Your task to perform on an android device: toggle show notifications on the lock screen Image 0: 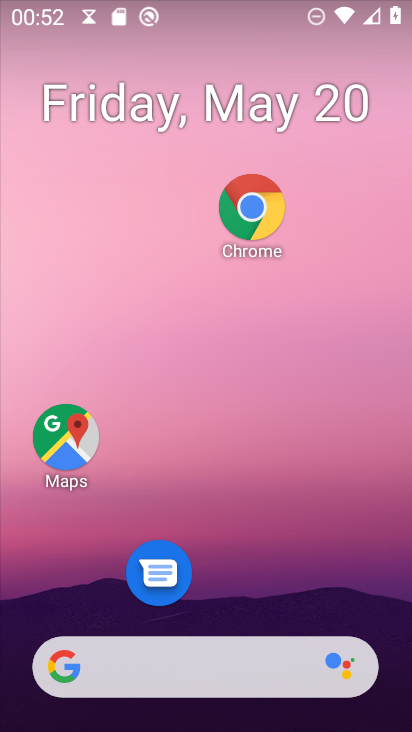
Step 0: drag from (243, 522) to (334, 14)
Your task to perform on an android device: toggle show notifications on the lock screen Image 1: 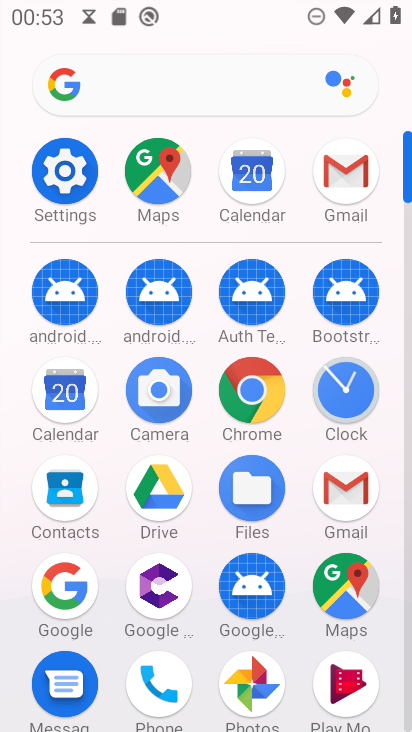
Step 1: click (59, 179)
Your task to perform on an android device: toggle show notifications on the lock screen Image 2: 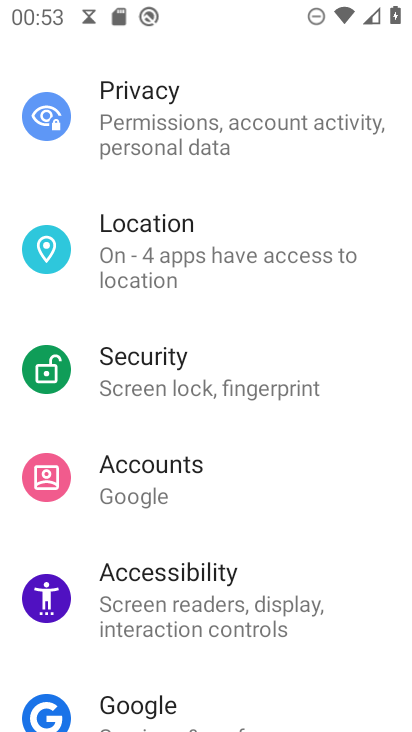
Step 2: drag from (187, 309) to (221, 689)
Your task to perform on an android device: toggle show notifications on the lock screen Image 3: 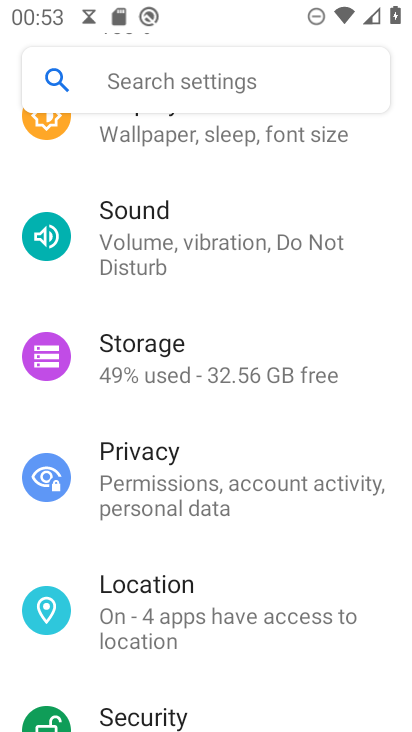
Step 3: drag from (192, 306) to (183, 613)
Your task to perform on an android device: toggle show notifications on the lock screen Image 4: 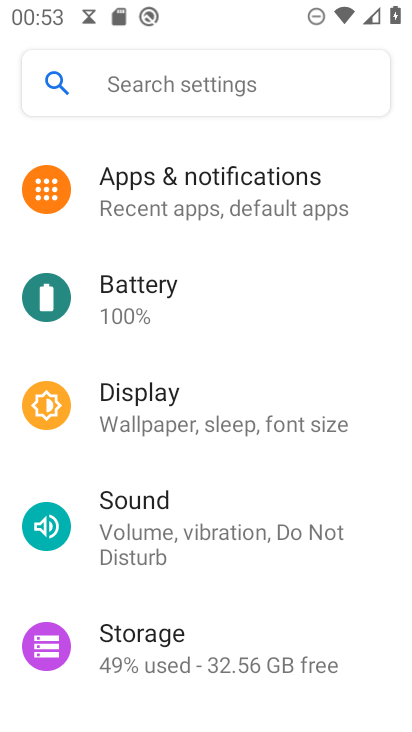
Step 4: click (196, 181)
Your task to perform on an android device: toggle show notifications on the lock screen Image 5: 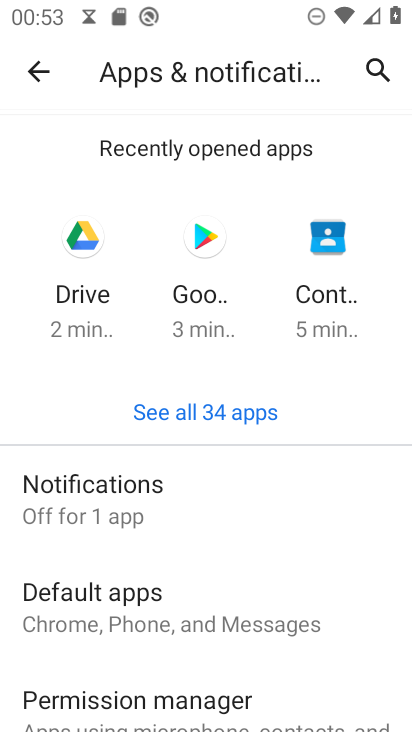
Step 5: click (219, 493)
Your task to perform on an android device: toggle show notifications on the lock screen Image 6: 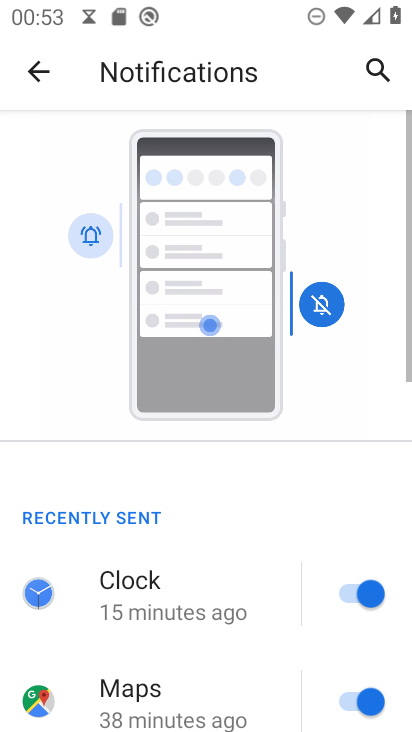
Step 6: drag from (232, 662) to (281, 153)
Your task to perform on an android device: toggle show notifications on the lock screen Image 7: 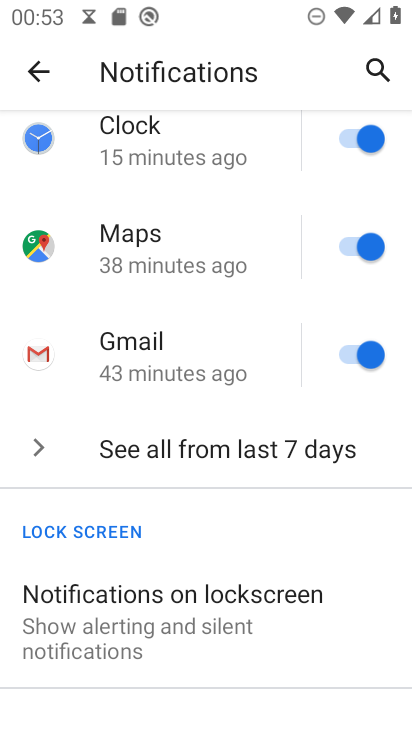
Step 7: click (196, 615)
Your task to perform on an android device: toggle show notifications on the lock screen Image 8: 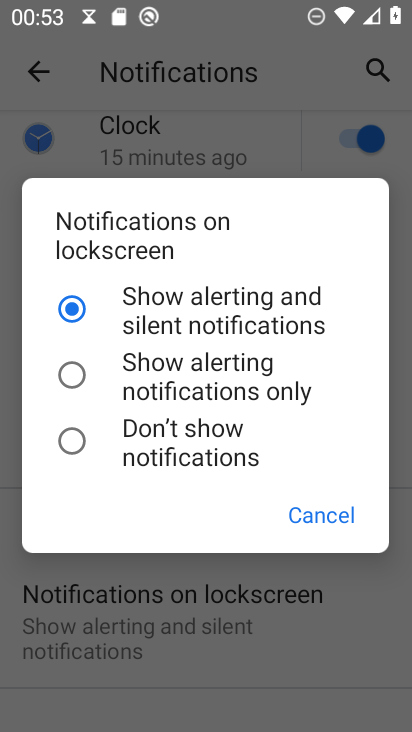
Step 8: click (213, 354)
Your task to perform on an android device: toggle show notifications on the lock screen Image 9: 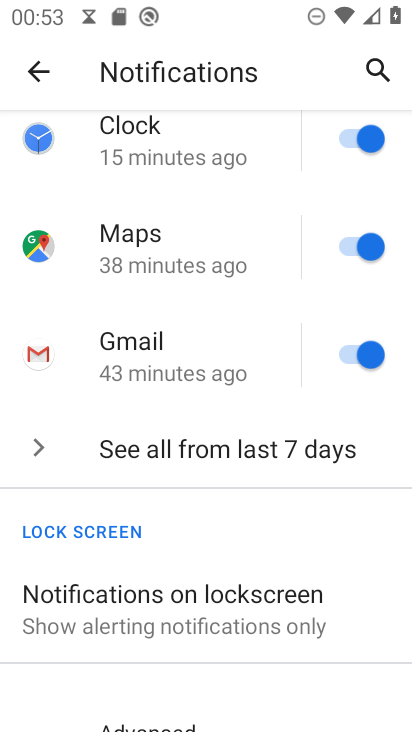
Step 9: task complete